Your task to perform on an android device: toggle show notifications on the lock screen Image 0: 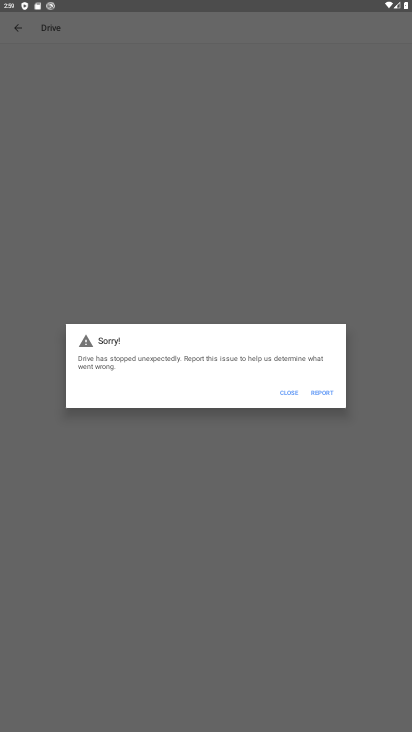
Step 0: press home button
Your task to perform on an android device: toggle show notifications on the lock screen Image 1: 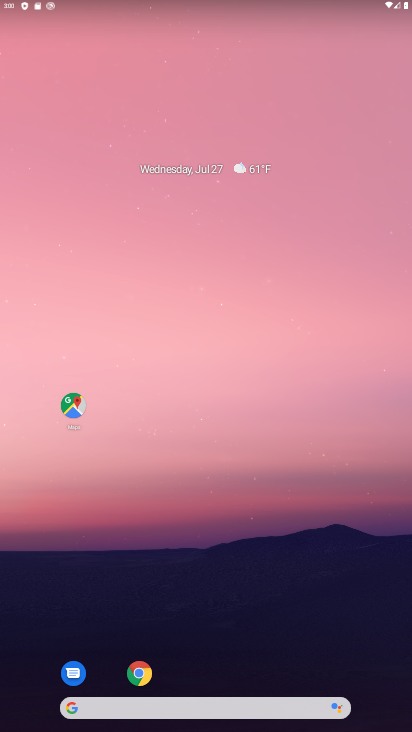
Step 1: drag from (264, 670) to (168, 148)
Your task to perform on an android device: toggle show notifications on the lock screen Image 2: 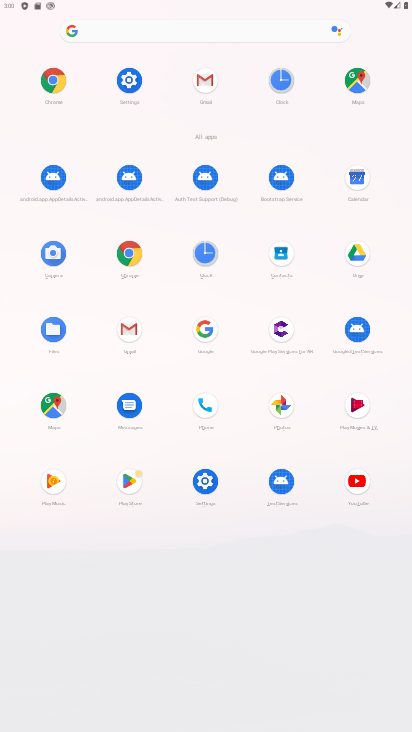
Step 2: click (212, 485)
Your task to perform on an android device: toggle show notifications on the lock screen Image 3: 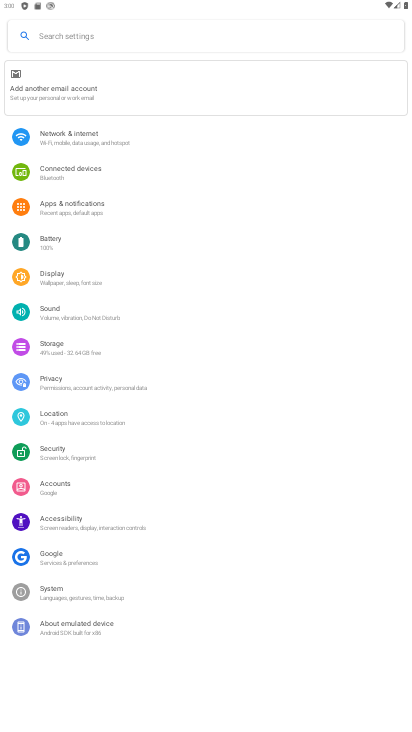
Step 3: click (129, 205)
Your task to perform on an android device: toggle show notifications on the lock screen Image 4: 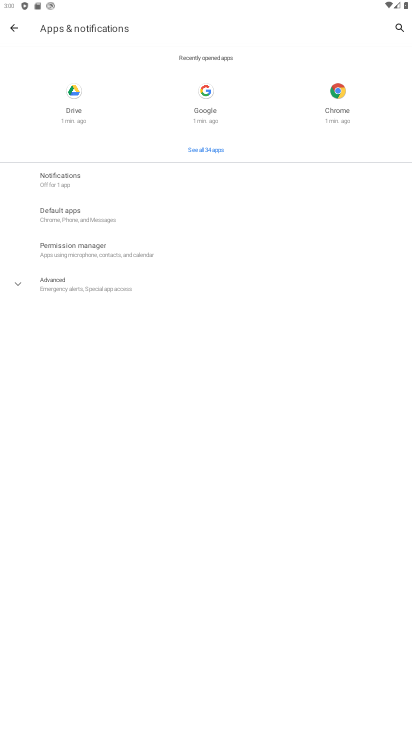
Step 4: click (84, 166)
Your task to perform on an android device: toggle show notifications on the lock screen Image 5: 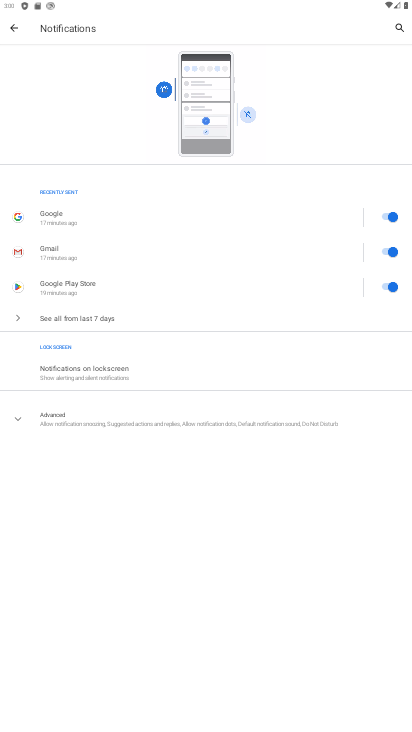
Step 5: click (110, 362)
Your task to perform on an android device: toggle show notifications on the lock screen Image 6: 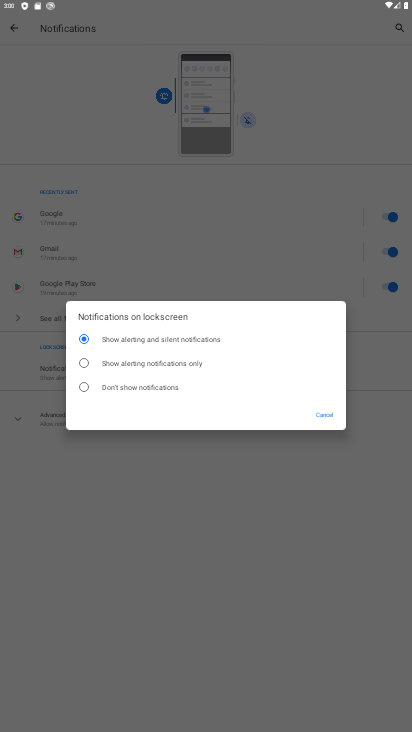
Step 6: click (133, 388)
Your task to perform on an android device: toggle show notifications on the lock screen Image 7: 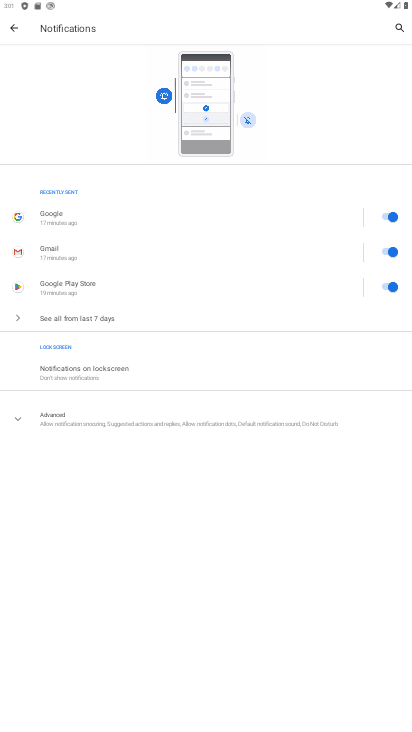
Step 7: task complete